Your task to perform on an android device: Set the phone to "Do not disturb". Image 0: 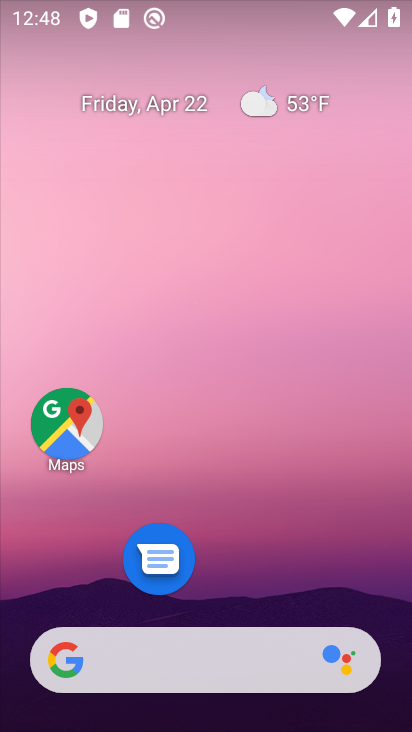
Step 0: drag from (196, 718) to (160, 57)
Your task to perform on an android device: Set the phone to "Do not disturb". Image 1: 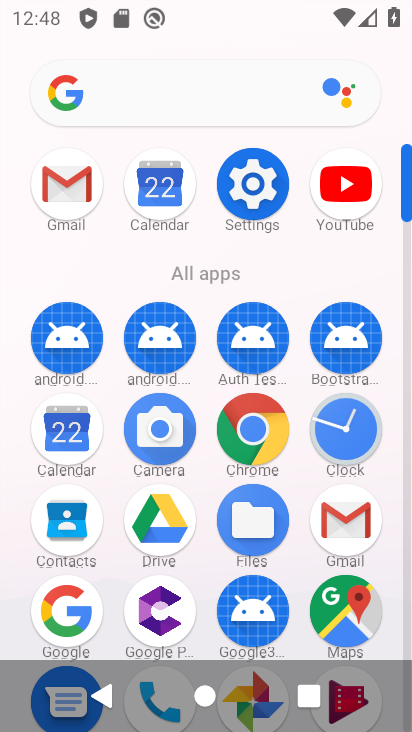
Step 1: click (265, 187)
Your task to perform on an android device: Set the phone to "Do not disturb". Image 2: 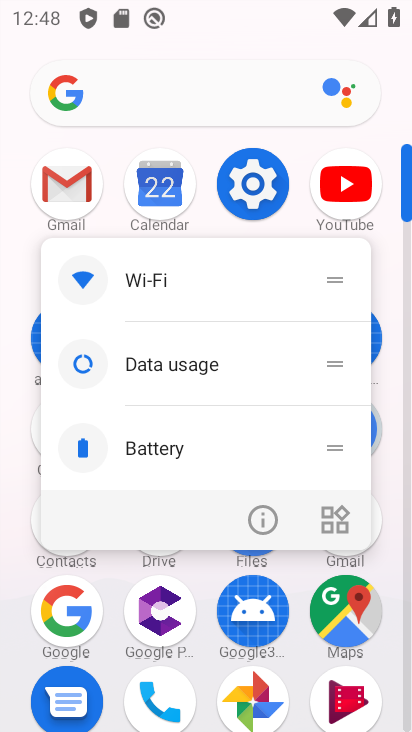
Step 2: click (242, 188)
Your task to perform on an android device: Set the phone to "Do not disturb". Image 3: 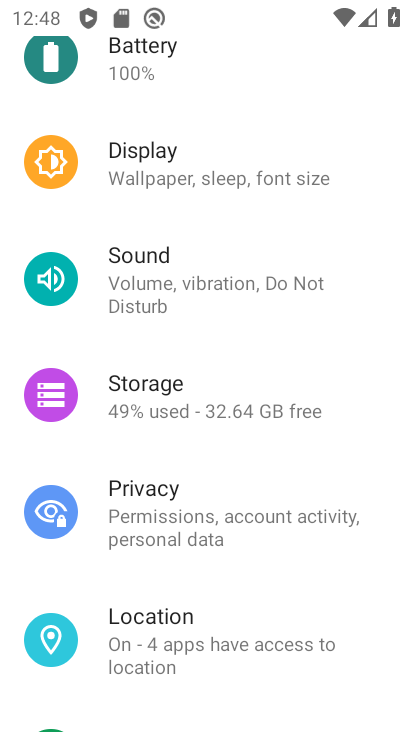
Step 3: click (193, 284)
Your task to perform on an android device: Set the phone to "Do not disturb". Image 4: 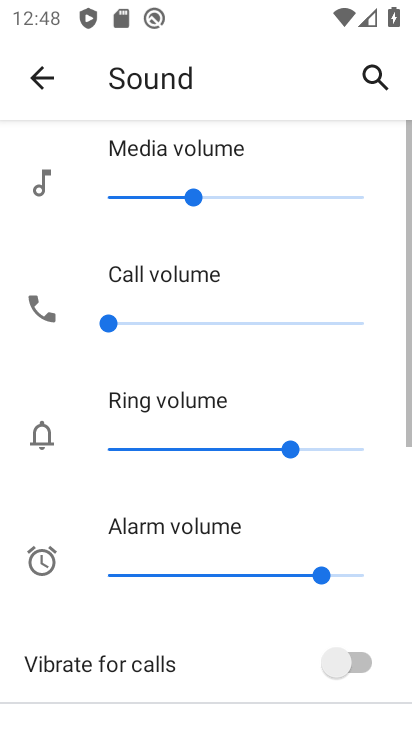
Step 4: drag from (204, 698) to (183, 173)
Your task to perform on an android device: Set the phone to "Do not disturb". Image 5: 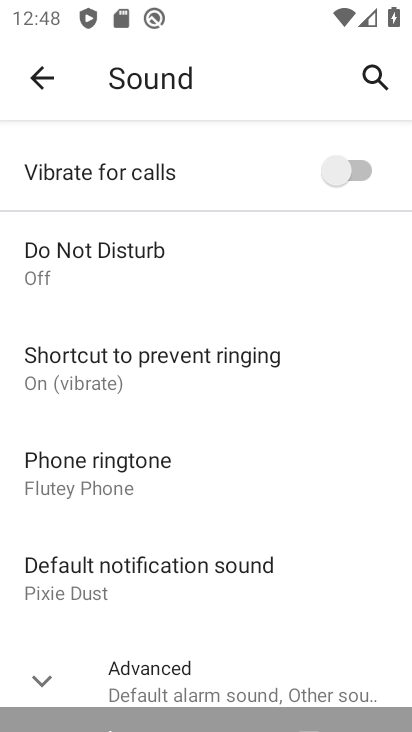
Step 5: click (73, 247)
Your task to perform on an android device: Set the phone to "Do not disturb". Image 6: 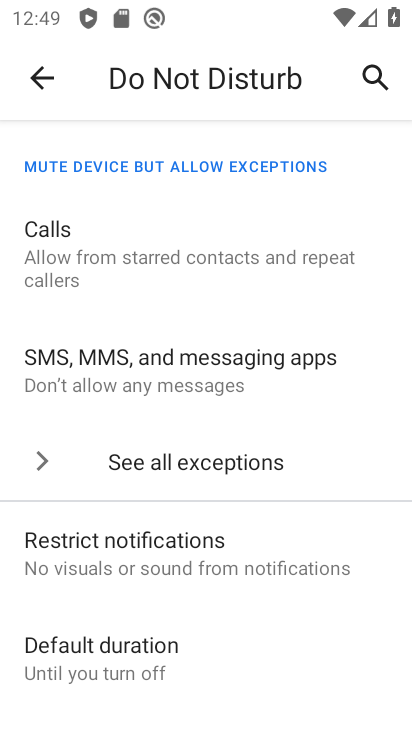
Step 6: drag from (197, 635) to (202, 196)
Your task to perform on an android device: Set the phone to "Do not disturb". Image 7: 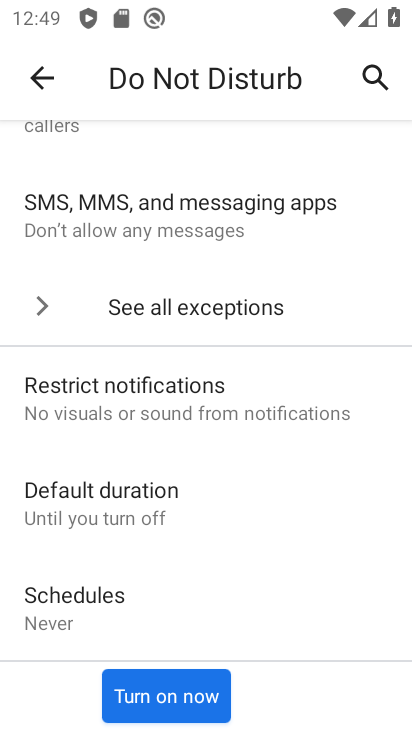
Step 7: click (193, 699)
Your task to perform on an android device: Set the phone to "Do not disturb". Image 8: 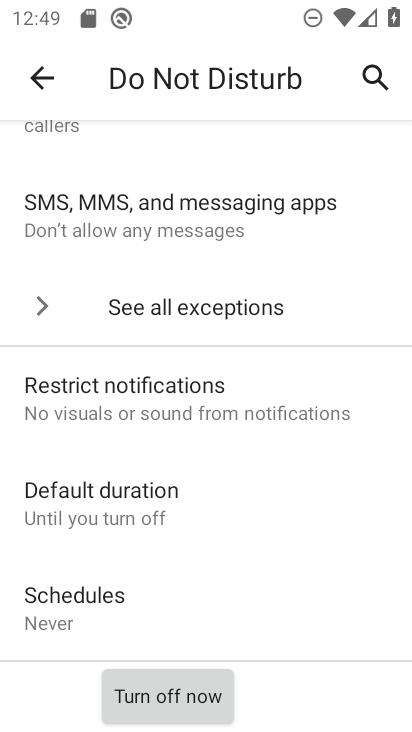
Step 8: task complete